Your task to perform on an android device: set default search engine in the chrome app Image 0: 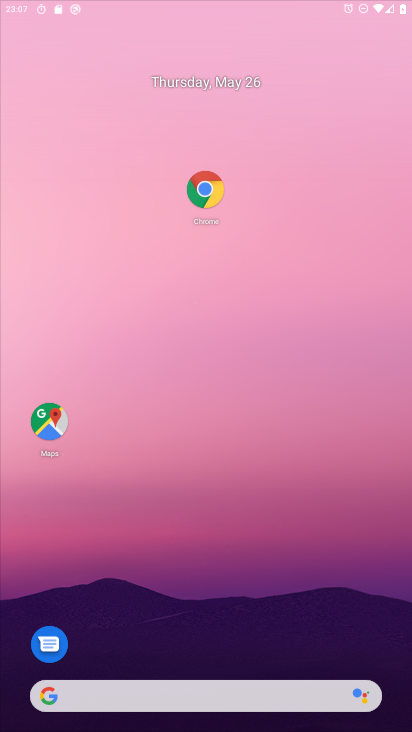
Step 0: drag from (192, 479) to (231, 235)
Your task to perform on an android device: set default search engine in the chrome app Image 1: 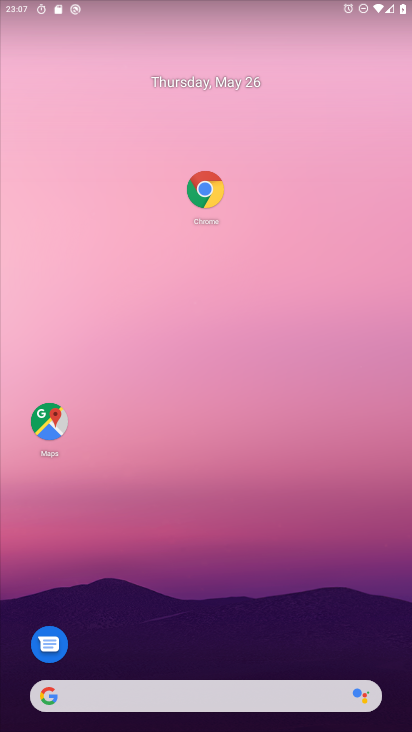
Step 1: drag from (200, 652) to (263, 228)
Your task to perform on an android device: set default search engine in the chrome app Image 2: 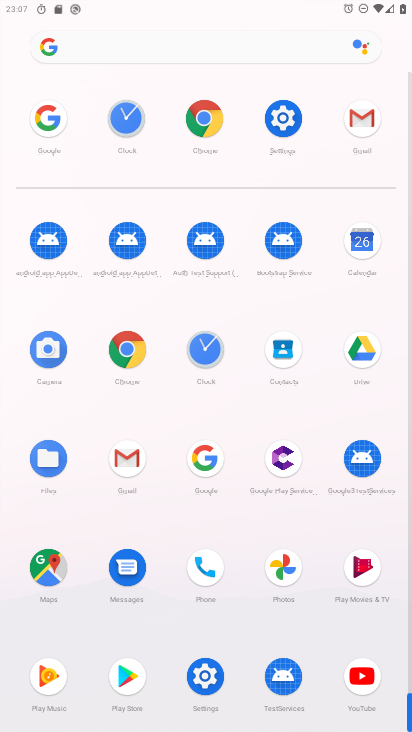
Step 2: click (118, 361)
Your task to perform on an android device: set default search engine in the chrome app Image 3: 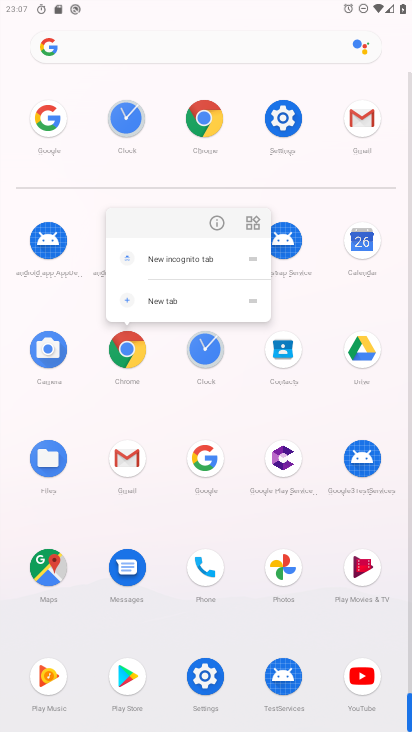
Step 3: click (204, 221)
Your task to perform on an android device: set default search engine in the chrome app Image 4: 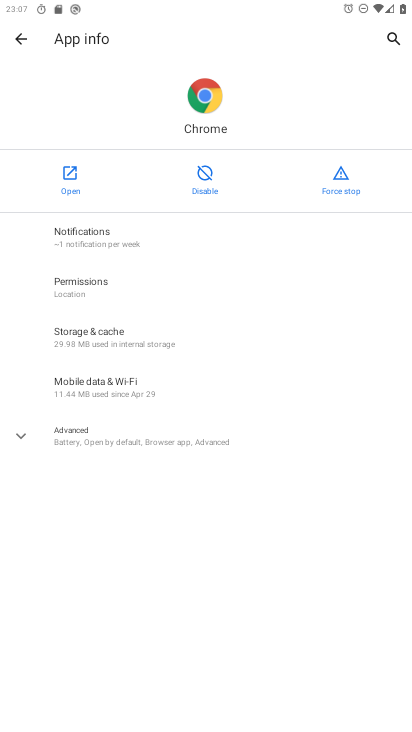
Step 4: click (80, 174)
Your task to perform on an android device: set default search engine in the chrome app Image 5: 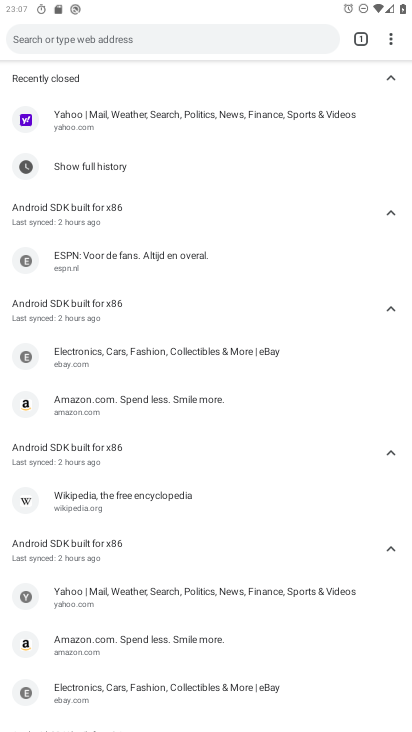
Step 5: drag from (390, 35) to (282, 323)
Your task to perform on an android device: set default search engine in the chrome app Image 6: 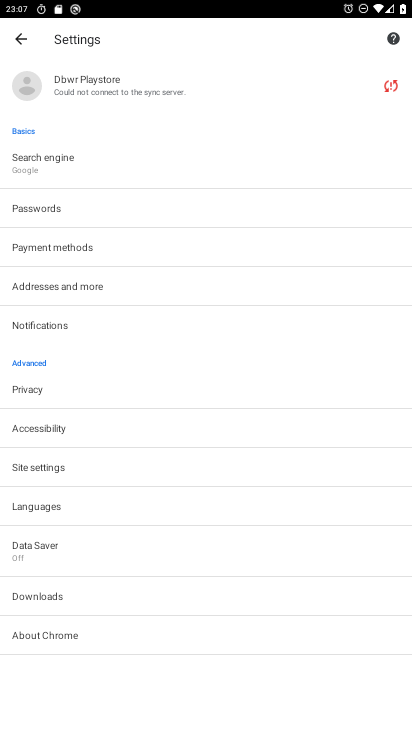
Step 6: click (173, 162)
Your task to perform on an android device: set default search engine in the chrome app Image 7: 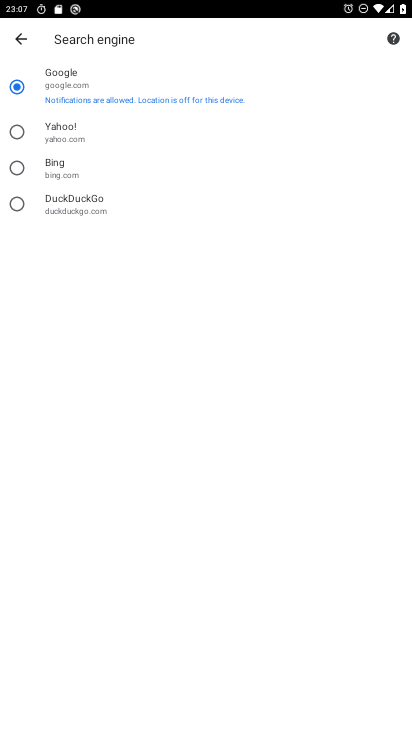
Step 7: click (79, 71)
Your task to perform on an android device: set default search engine in the chrome app Image 8: 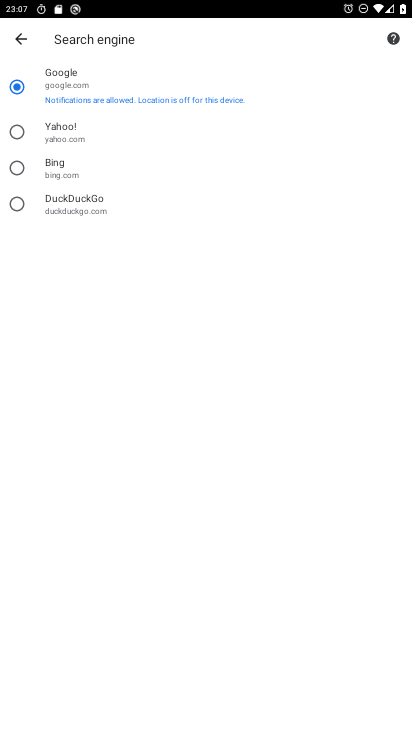
Step 8: task complete